Your task to perform on an android device: change timer sound Image 0: 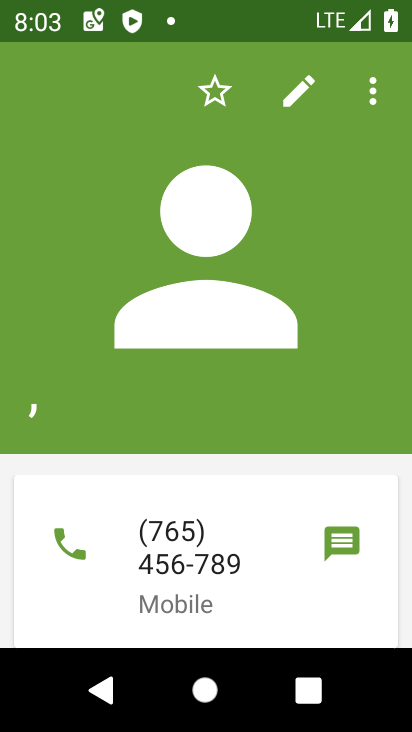
Step 0: drag from (219, 554) to (252, 189)
Your task to perform on an android device: change timer sound Image 1: 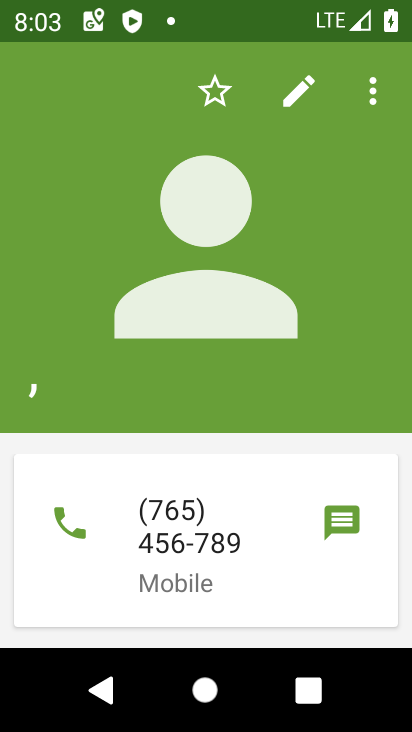
Step 1: press home button
Your task to perform on an android device: change timer sound Image 2: 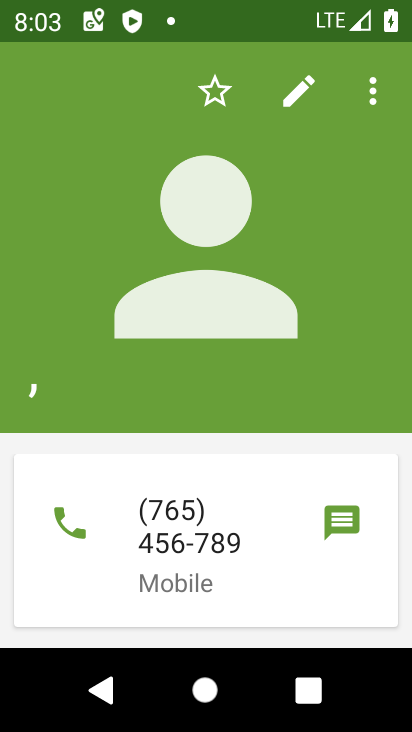
Step 2: press home button
Your task to perform on an android device: change timer sound Image 3: 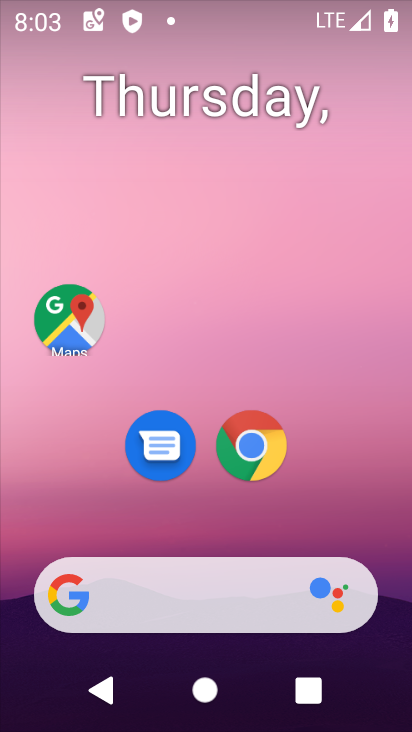
Step 3: drag from (193, 529) to (197, 184)
Your task to perform on an android device: change timer sound Image 4: 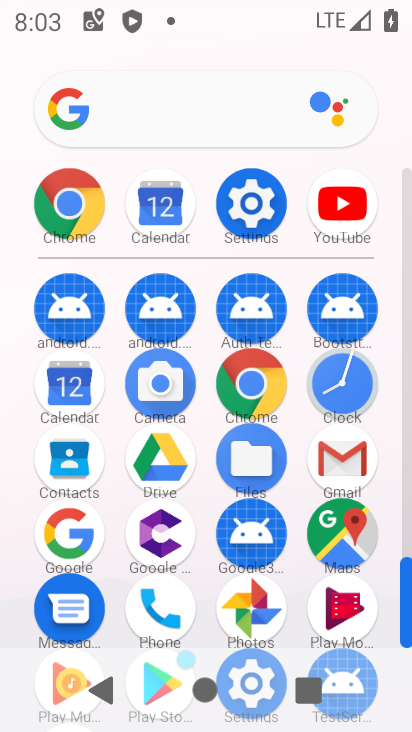
Step 4: click (348, 370)
Your task to perform on an android device: change timer sound Image 5: 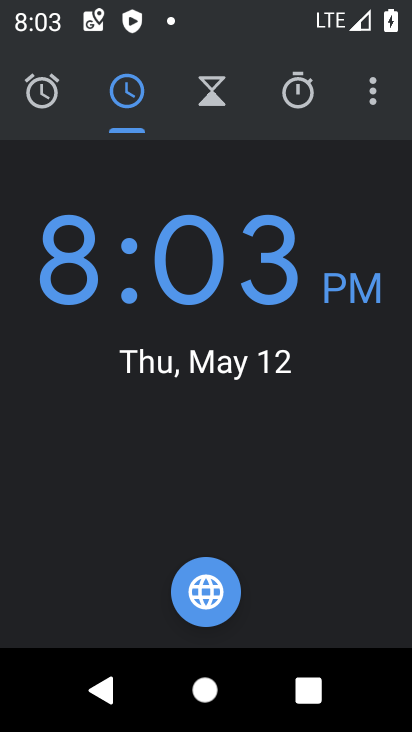
Step 5: drag from (377, 81) to (290, 180)
Your task to perform on an android device: change timer sound Image 6: 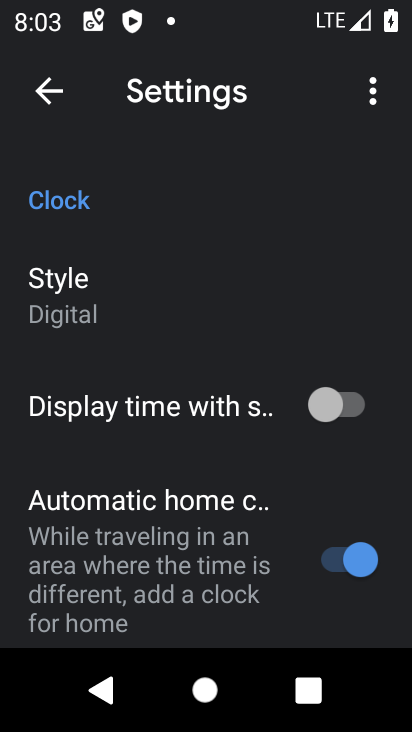
Step 6: drag from (158, 556) to (237, 163)
Your task to perform on an android device: change timer sound Image 7: 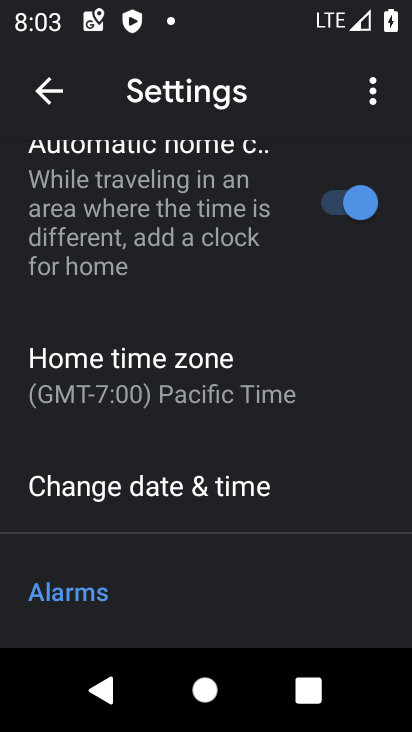
Step 7: drag from (208, 510) to (238, 239)
Your task to perform on an android device: change timer sound Image 8: 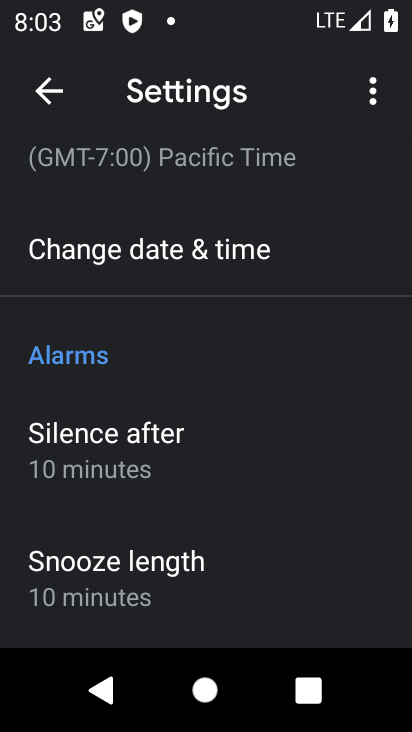
Step 8: drag from (226, 507) to (259, 197)
Your task to perform on an android device: change timer sound Image 9: 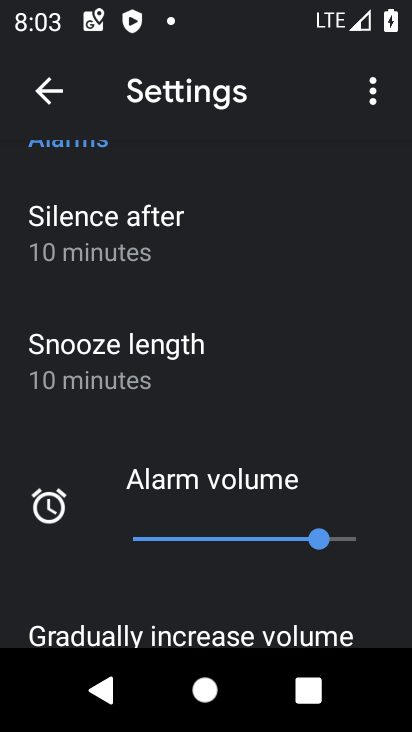
Step 9: drag from (186, 608) to (254, 246)
Your task to perform on an android device: change timer sound Image 10: 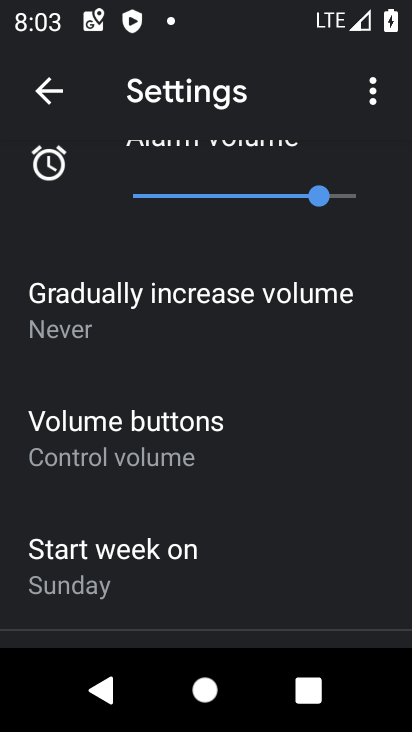
Step 10: drag from (200, 531) to (298, 724)
Your task to perform on an android device: change timer sound Image 11: 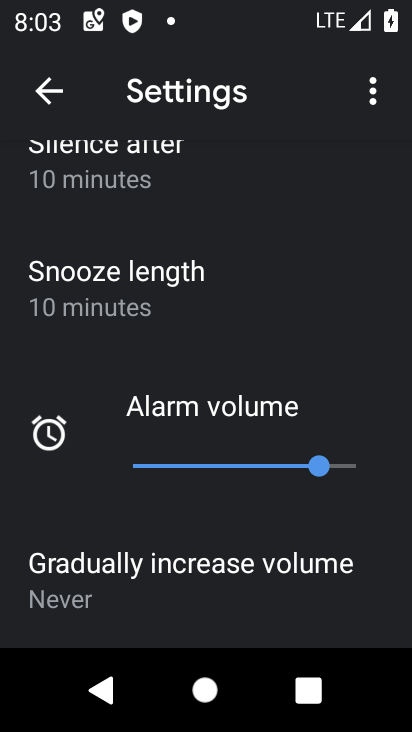
Step 11: drag from (233, 603) to (354, 119)
Your task to perform on an android device: change timer sound Image 12: 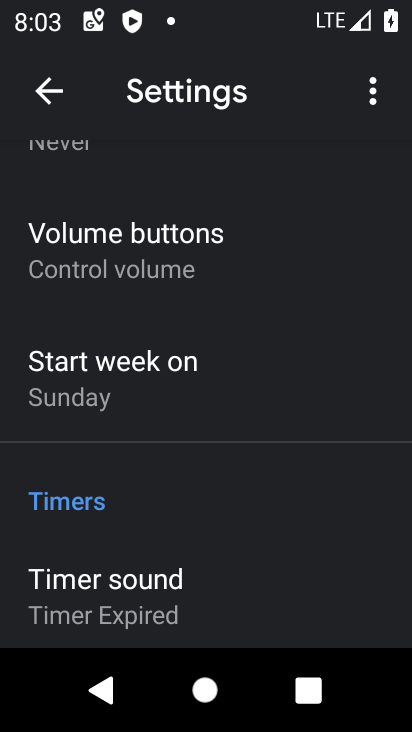
Step 12: drag from (265, 403) to (333, 126)
Your task to perform on an android device: change timer sound Image 13: 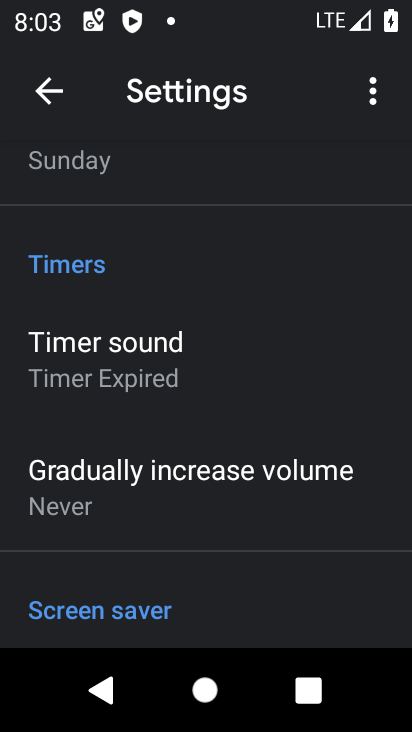
Step 13: click (162, 355)
Your task to perform on an android device: change timer sound Image 14: 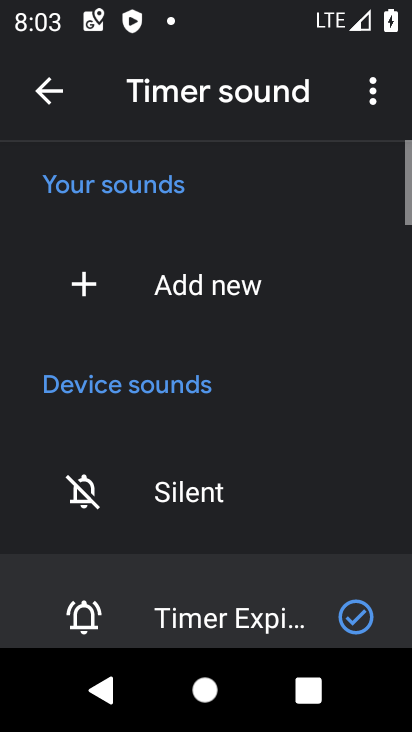
Step 14: drag from (248, 510) to (314, 150)
Your task to perform on an android device: change timer sound Image 15: 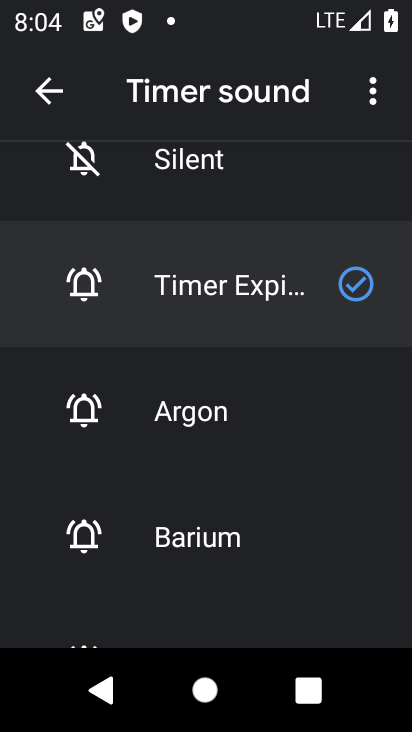
Step 15: drag from (258, 567) to (302, 230)
Your task to perform on an android device: change timer sound Image 16: 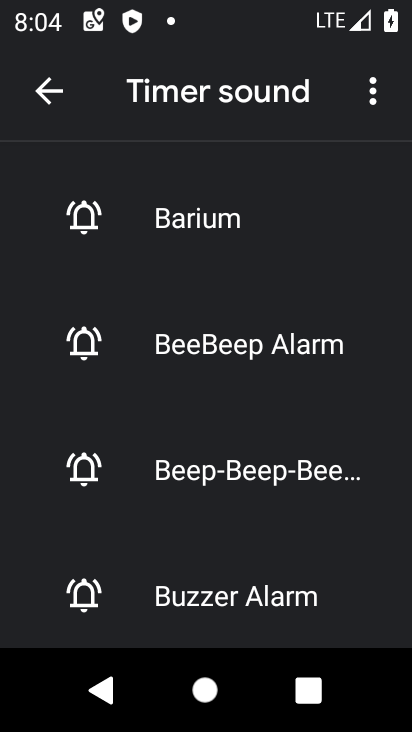
Step 16: click (282, 465)
Your task to perform on an android device: change timer sound Image 17: 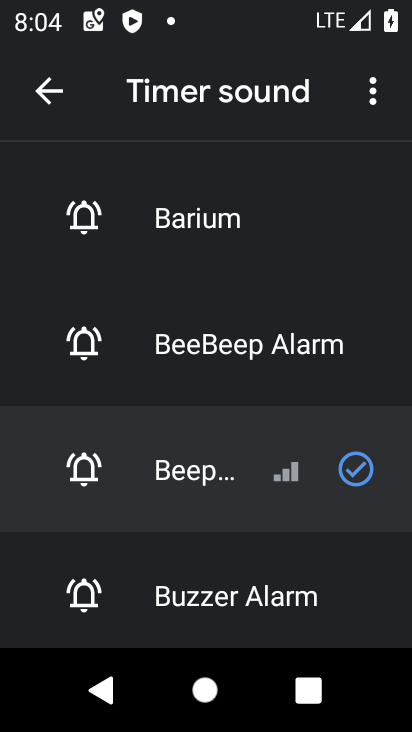
Step 17: task complete